Your task to perform on an android device: Search for pizza restaurants on Maps Image 0: 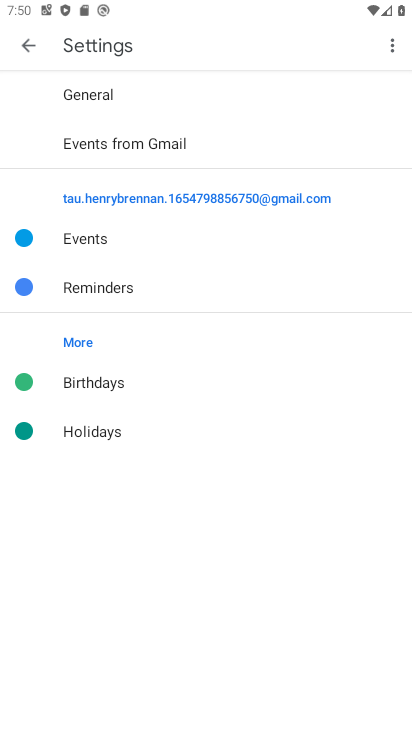
Step 0: press home button
Your task to perform on an android device: Search for pizza restaurants on Maps Image 1: 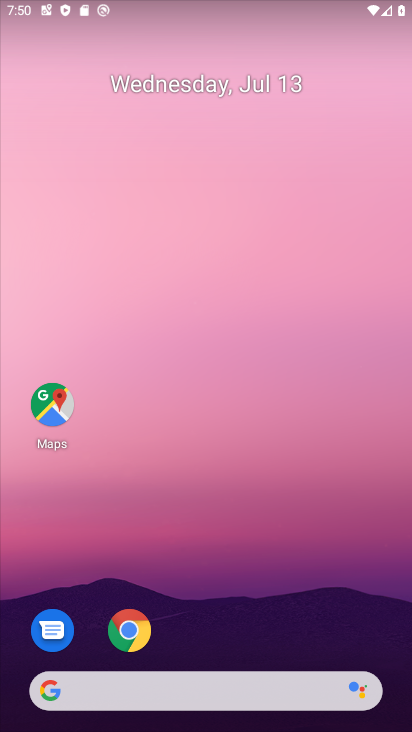
Step 1: drag from (326, 579) to (346, 141)
Your task to perform on an android device: Search for pizza restaurants on Maps Image 2: 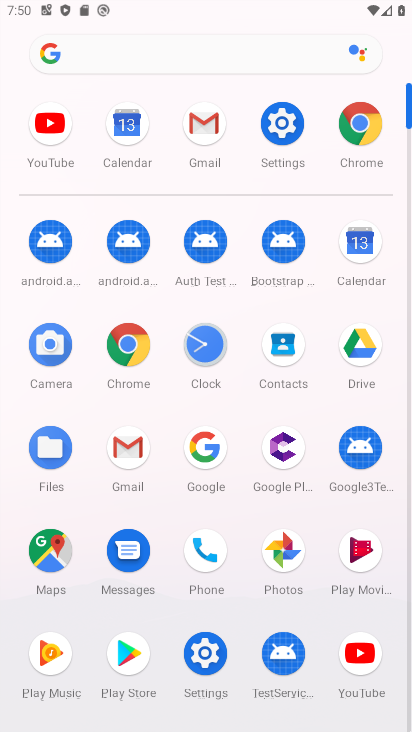
Step 2: click (56, 551)
Your task to perform on an android device: Search for pizza restaurants on Maps Image 3: 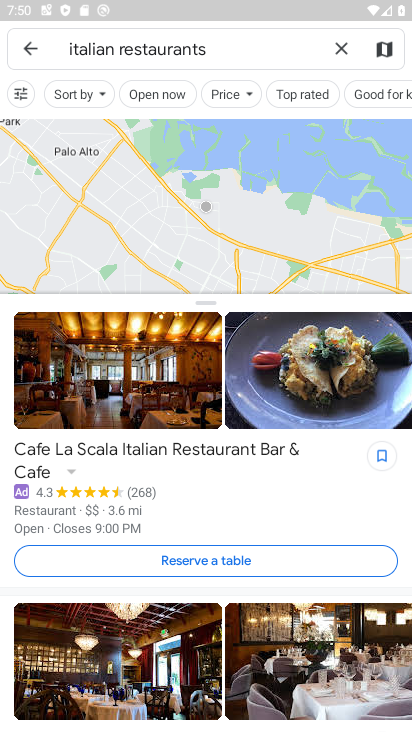
Step 3: click (339, 47)
Your task to perform on an android device: Search for pizza restaurants on Maps Image 4: 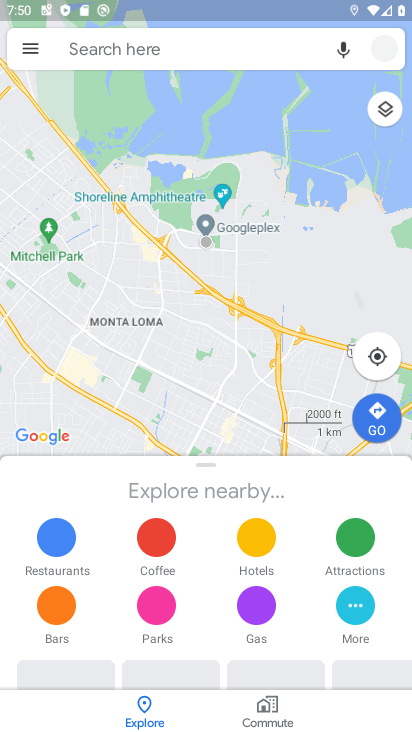
Step 4: click (236, 43)
Your task to perform on an android device: Search for pizza restaurants on Maps Image 5: 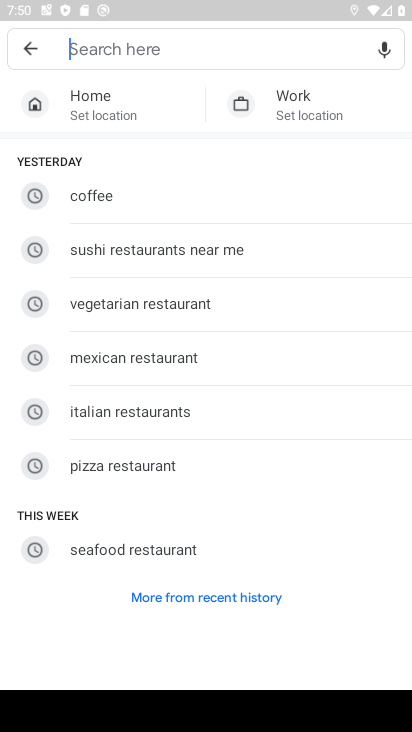
Step 5: type "pizza restaurants"
Your task to perform on an android device: Search for pizza restaurants on Maps Image 6: 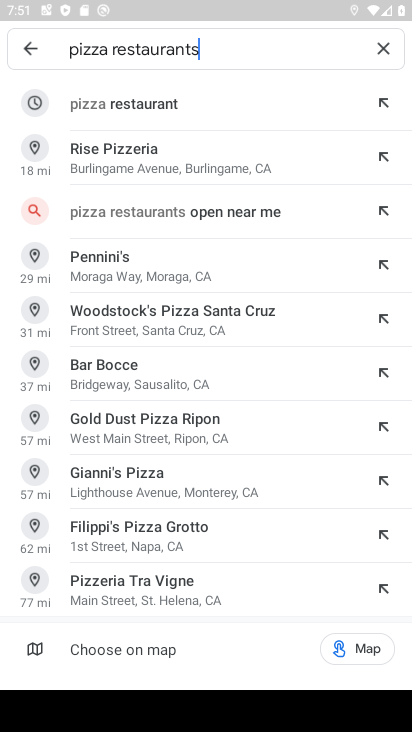
Step 6: click (210, 106)
Your task to perform on an android device: Search for pizza restaurants on Maps Image 7: 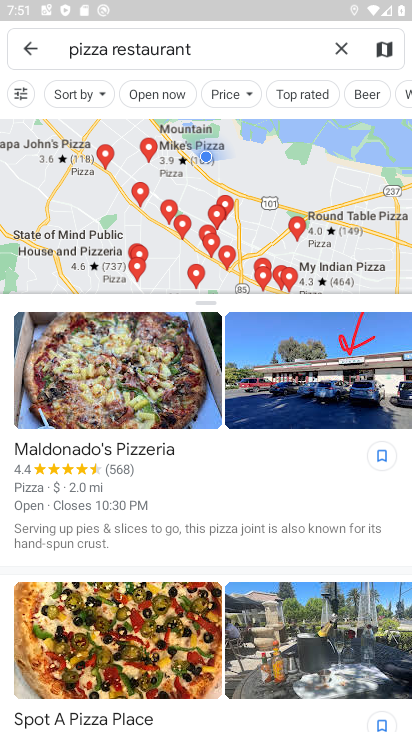
Step 7: task complete